Your task to perform on an android device: Search for Italian restaurants on Maps Image 0: 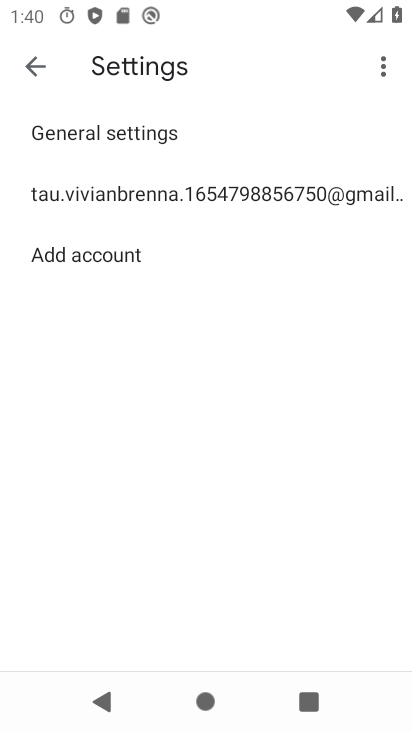
Step 0: press home button
Your task to perform on an android device: Search for Italian restaurants on Maps Image 1: 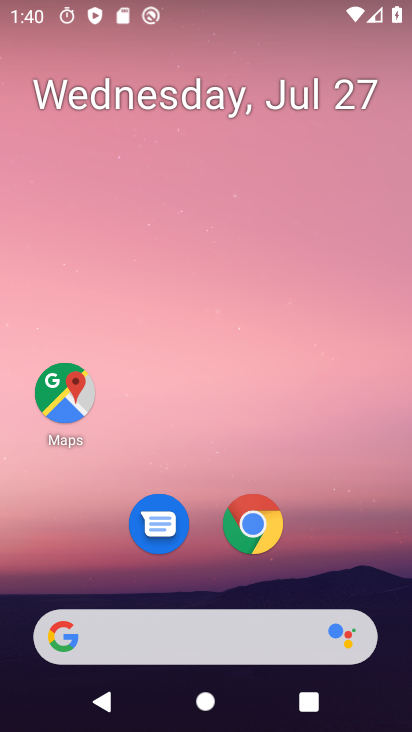
Step 1: click (65, 395)
Your task to perform on an android device: Search for Italian restaurants on Maps Image 2: 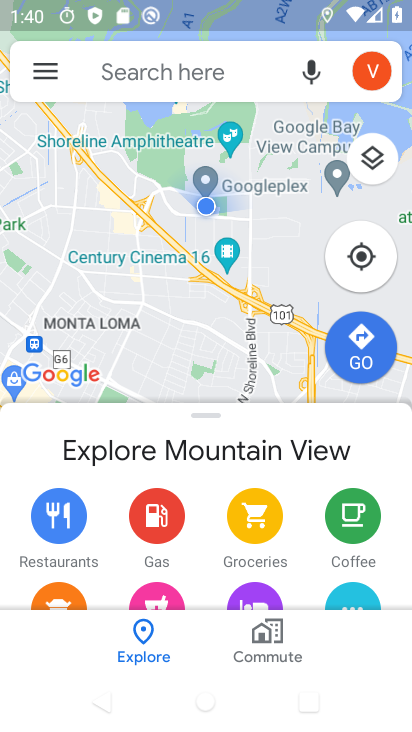
Step 2: click (169, 67)
Your task to perform on an android device: Search for Italian restaurants on Maps Image 3: 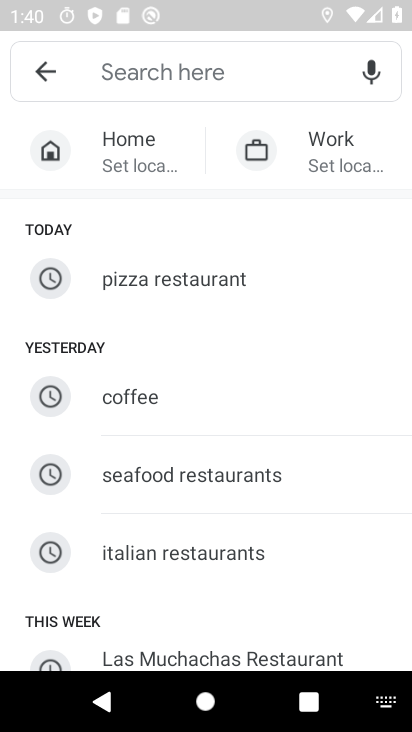
Step 3: click (186, 540)
Your task to perform on an android device: Search for Italian restaurants on Maps Image 4: 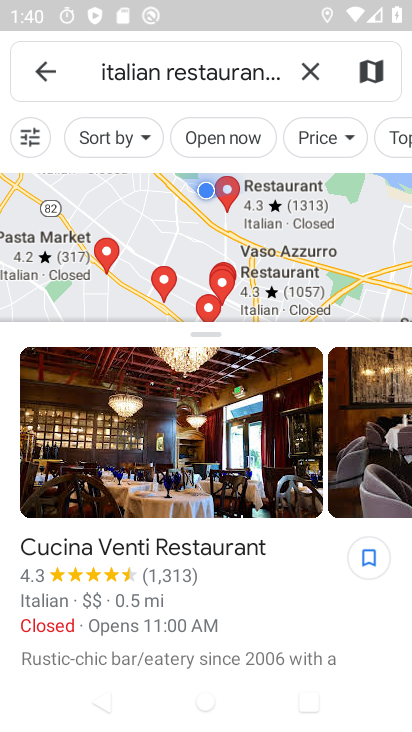
Step 4: task complete